Your task to perform on an android device: Do I have any events today? Image 0: 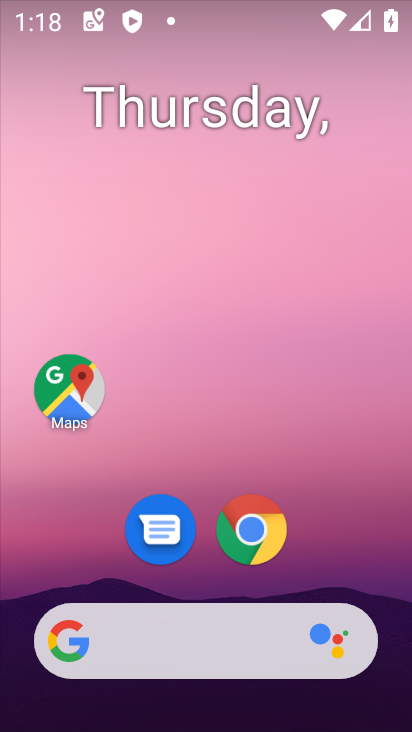
Step 0: drag from (361, 564) to (376, 141)
Your task to perform on an android device: Do I have any events today? Image 1: 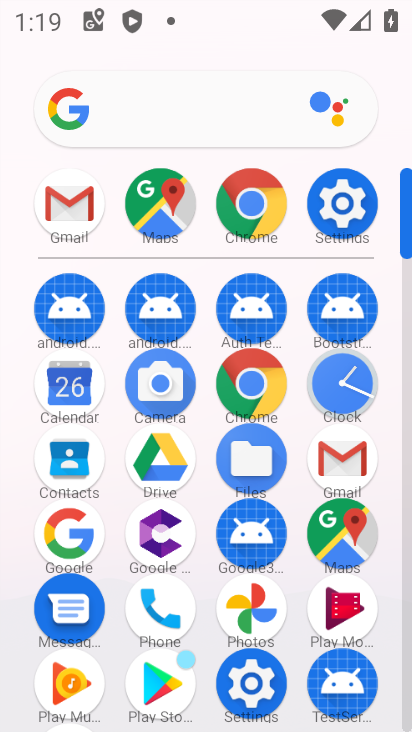
Step 1: click (74, 369)
Your task to perform on an android device: Do I have any events today? Image 2: 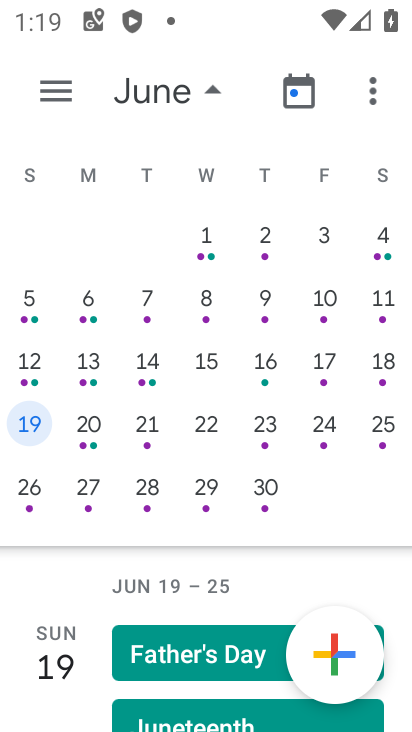
Step 2: drag from (75, 365) to (381, 356)
Your task to perform on an android device: Do I have any events today? Image 3: 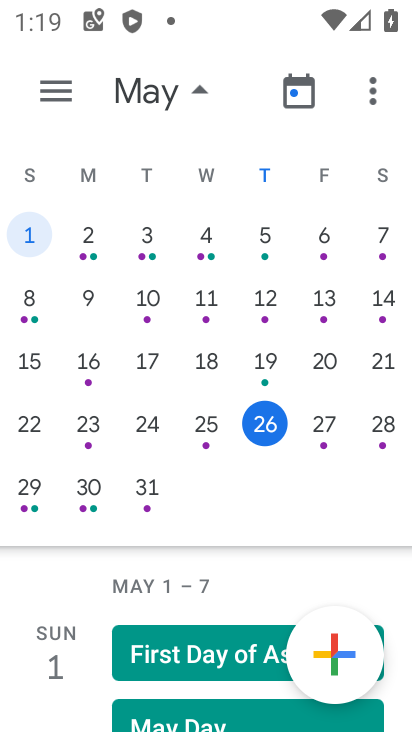
Step 3: drag from (283, 489) to (320, 355)
Your task to perform on an android device: Do I have any events today? Image 4: 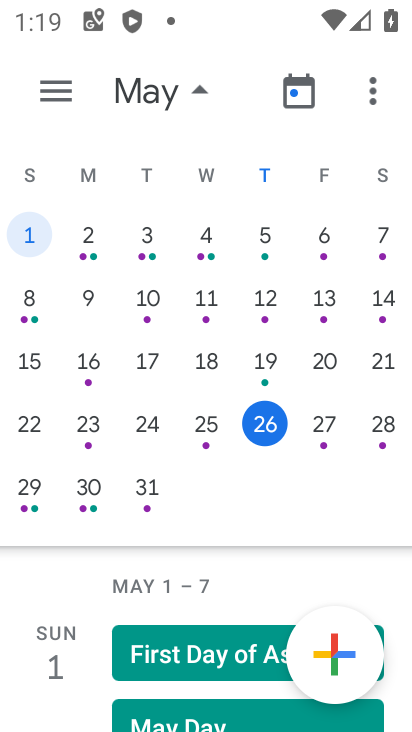
Step 4: click (263, 426)
Your task to perform on an android device: Do I have any events today? Image 5: 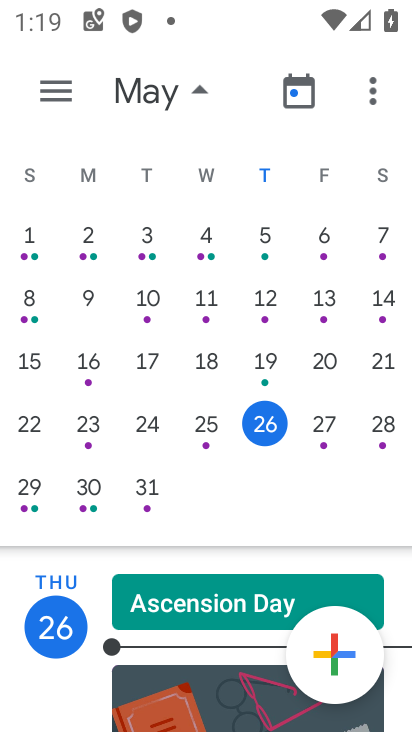
Step 5: task complete